Your task to perform on an android device: Open settings Image 0: 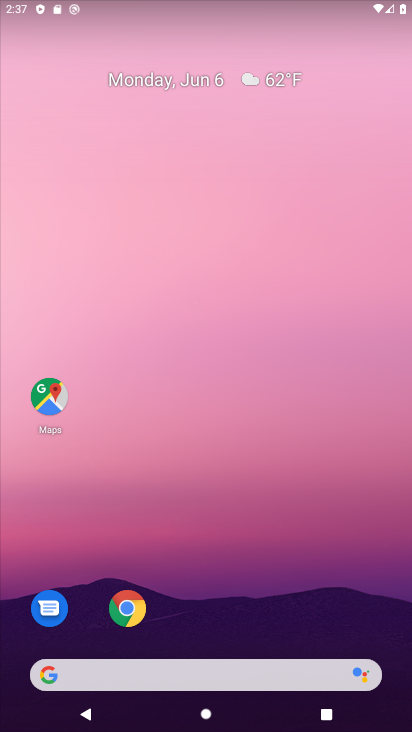
Step 0: drag from (216, 625) to (198, 88)
Your task to perform on an android device: Open settings Image 1: 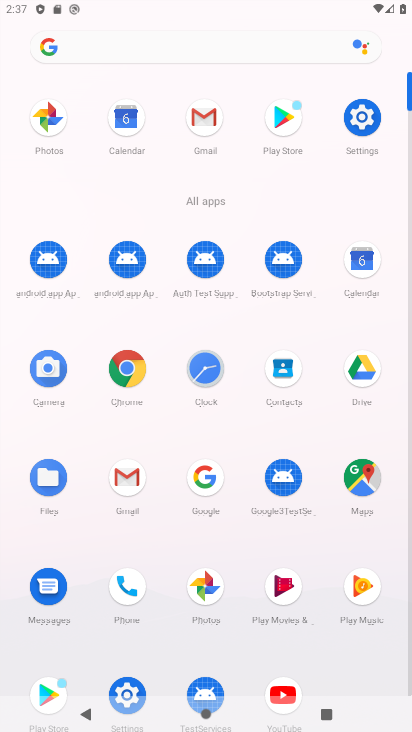
Step 1: click (367, 124)
Your task to perform on an android device: Open settings Image 2: 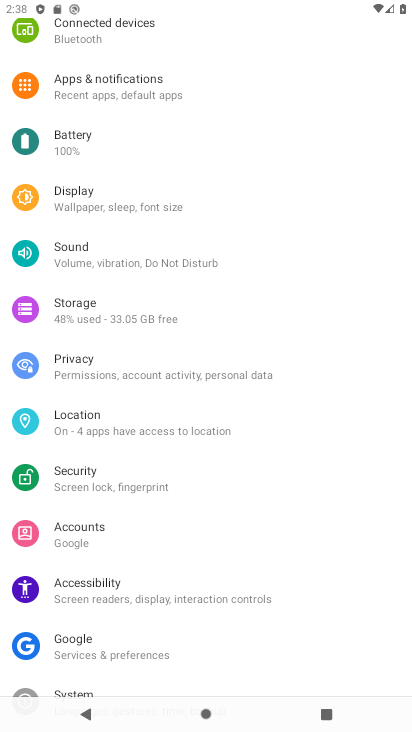
Step 2: task complete